Your task to perform on an android device: Search for Italian restaurants on Maps Image 0: 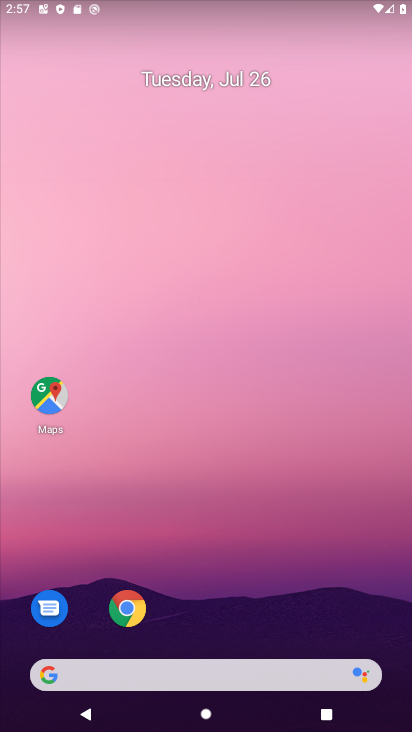
Step 0: click (60, 397)
Your task to perform on an android device: Search for Italian restaurants on Maps Image 1: 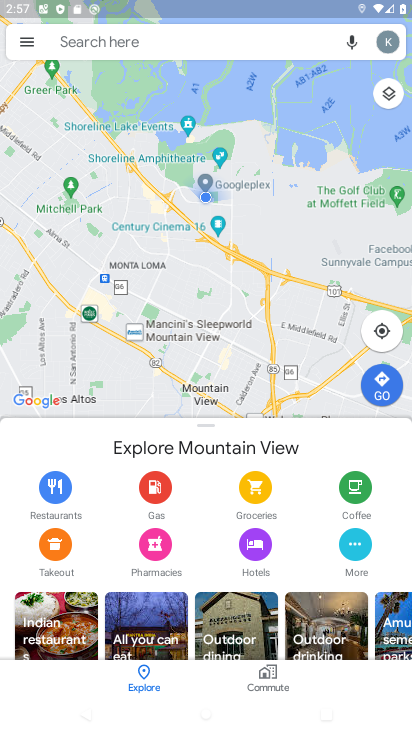
Step 1: task complete